Your task to perform on an android device: Show me productivity apps on the Play Store Image 0: 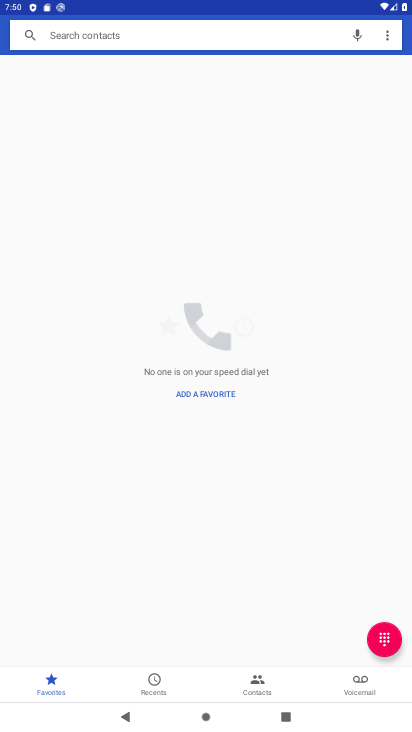
Step 0: press home button
Your task to perform on an android device: Show me productivity apps on the Play Store Image 1: 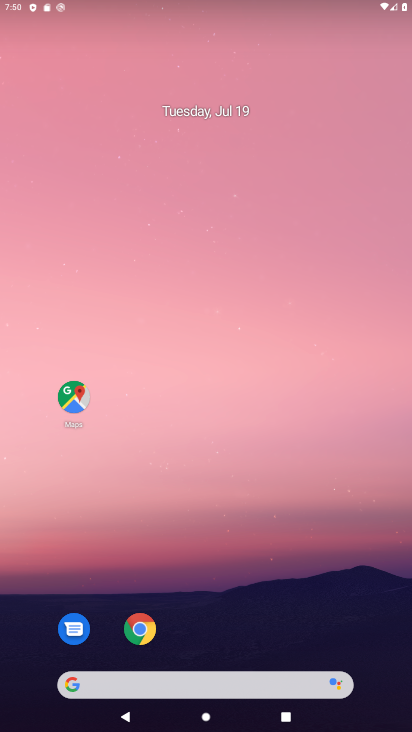
Step 1: drag from (229, 529) to (235, 53)
Your task to perform on an android device: Show me productivity apps on the Play Store Image 2: 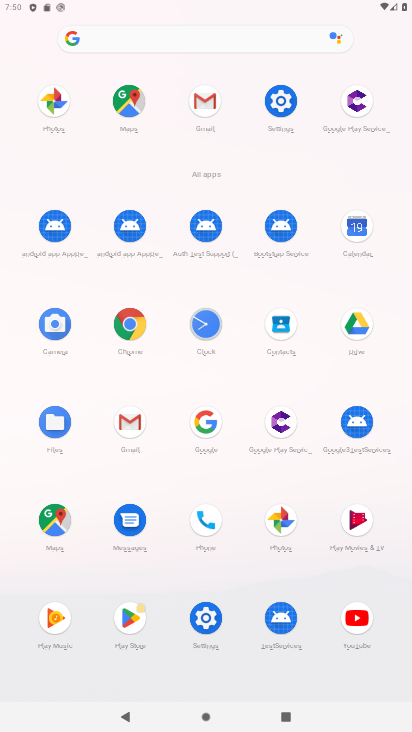
Step 2: drag from (163, 575) to (133, 327)
Your task to perform on an android device: Show me productivity apps on the Play Store Image 3: 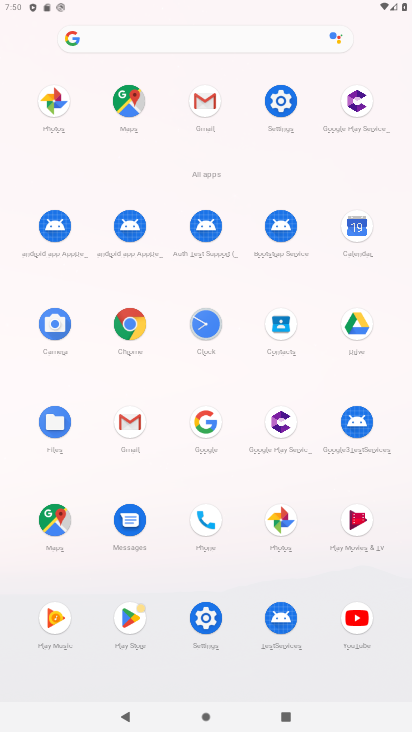
Step 3: click (131, 620)
Your task to perform on an android device: Show me productivity apps on the Play Store Image 4: 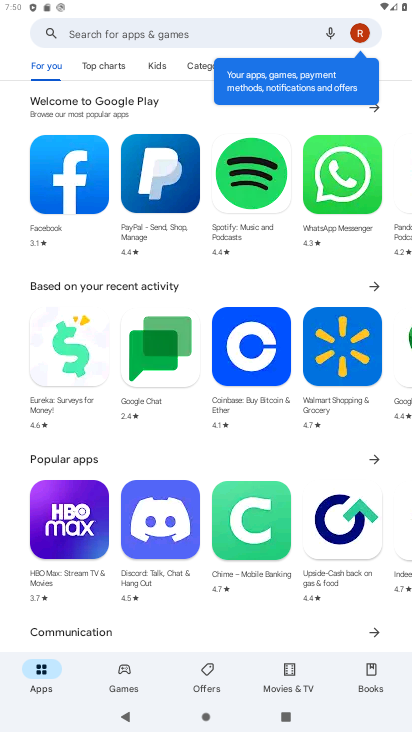
Step 4: click (195, 68)
Your task to perform on an android device: Show me productivity apps on the Play Store Image 5: 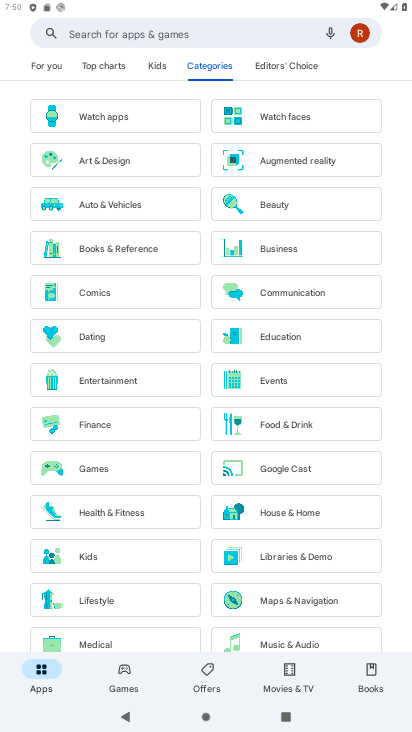
Step 5: drag from (372, 598) to (355, 132)
Your task to perform on an android device: Show me productivity apps on the Play Store Image 6: 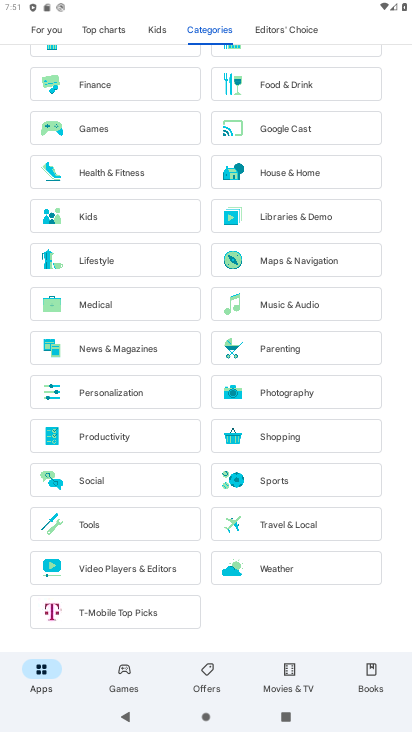
Step 6: click (117, 433)
Your task to perform on an android device: Show me productivity apps on the Play Store Image 7: 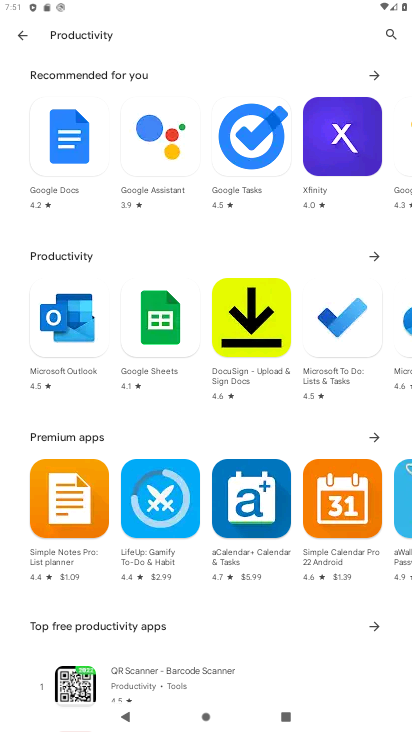
Step 7: task complete